Your task to perform on an android device: see creations saved in the google photos Image 0: 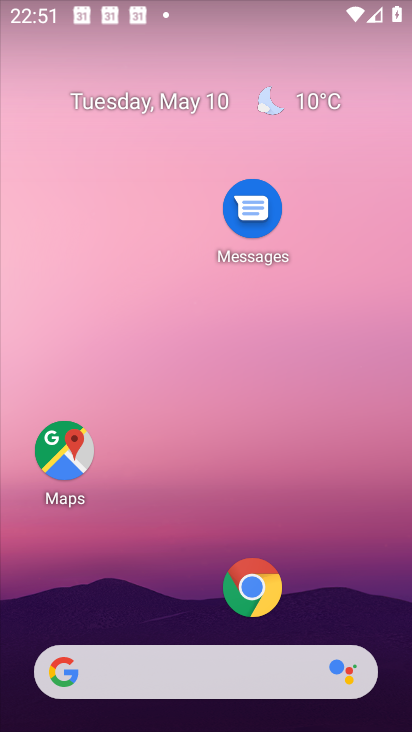
Step 0: drag from (177, 596) to (225, 131)
Your task to perform on an android device: see creations saved in the google photos Image 1: 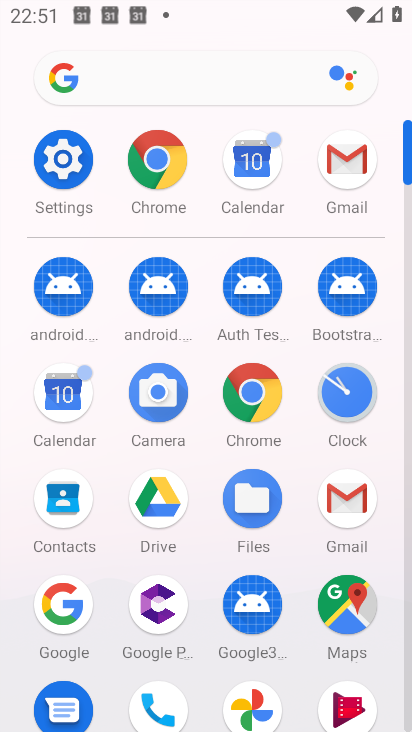
Step 1: click (256, 683)
Your task to perform on an android device: see creations saved in the google photos Image 2: 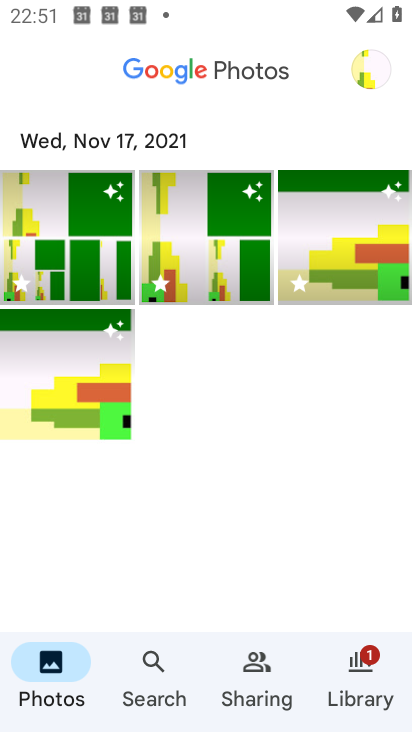
Step 2: click (163, 662)
Your task to perform on an android device: see creations saved in the google photos Image 3: 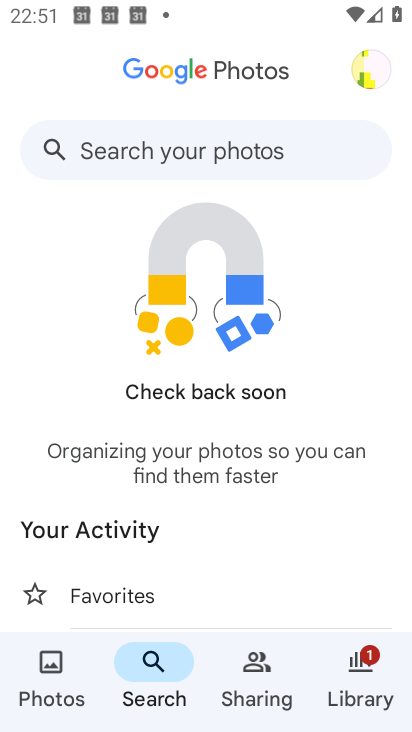
Step 3: click (184, 160)
Your task to perform on an android device: see creations saved in the google photos Image 4: 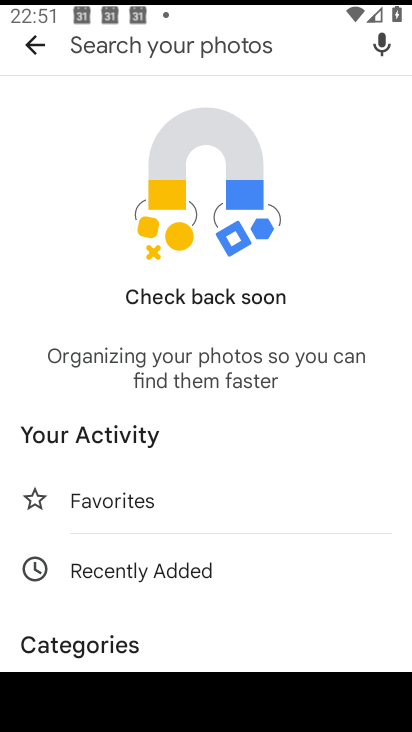
Step 4: type "creations"
Your task to perform on an android device: see creations saved in the google photos Image 5: 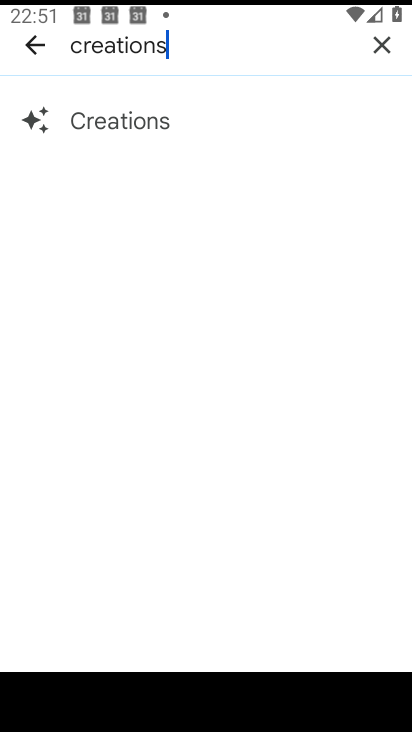
Step 5: click (160, 117)
Your task to perform on an android device: see creations saved in the google photos Image 6: 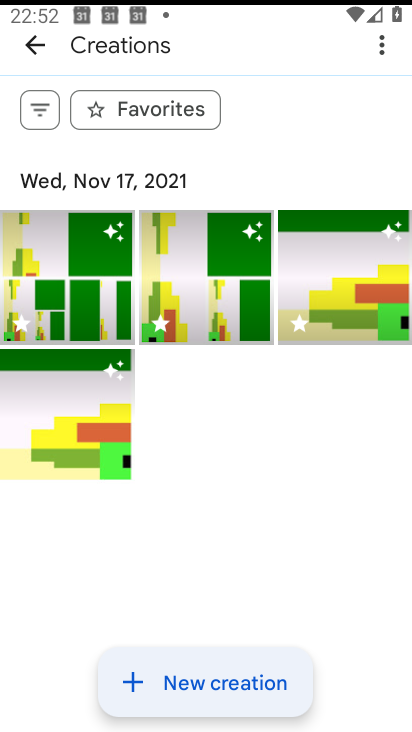
Step 6: task complete